Your task to perform on an android device: Open Yahoo.com Image 0: 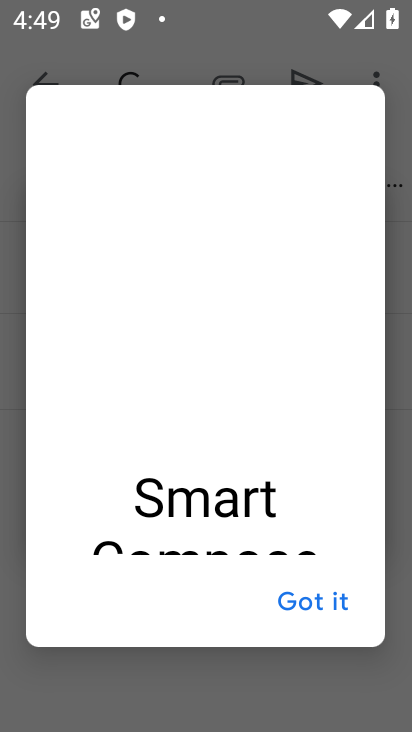
Step 0: press home button
Your task to perform on an android device: Open Yahoo.com Image 1: 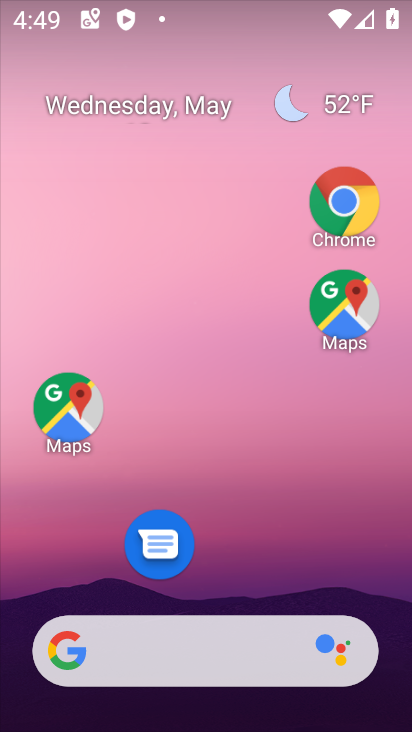
Step 1: click (350, 243)
Your task to perform on an android device: Open Yahoo.com Image 2: 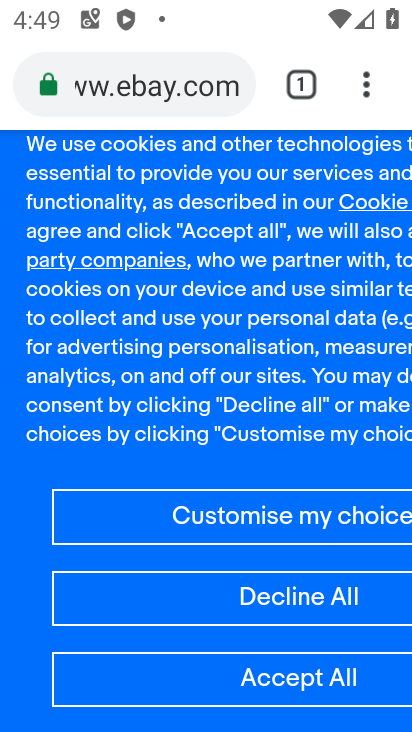
Step 2: press back button
Your task to perform on an android device: Open Yahoo.com Image 3: 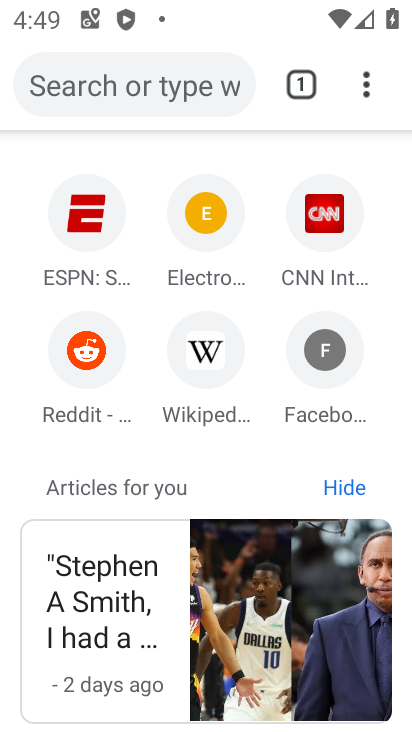
Step 3: click (172, 83)
Your task to perform on an android device: Open Yahoo.com Image 4: 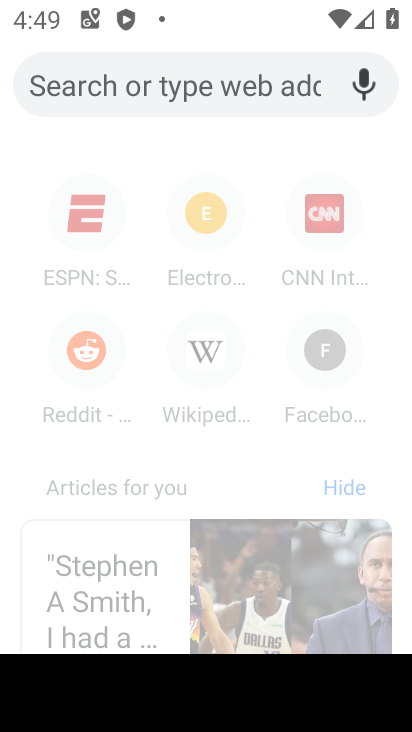
Step 4: type "www.yahoo.com"
Your task to perform on an android device: Open Yahoo.com Image 5: 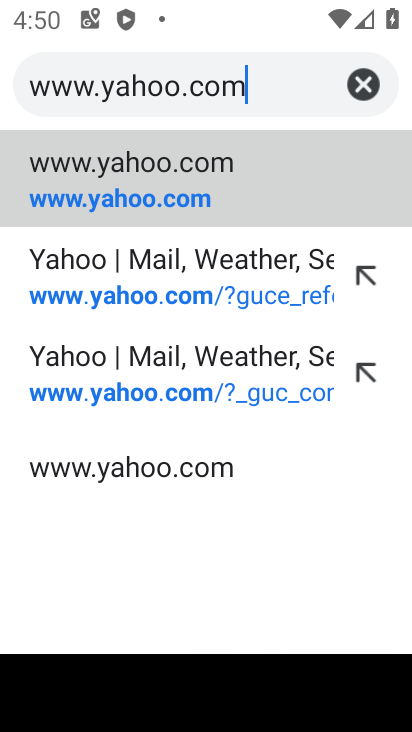
Step 5: click (89, 201)
Your task to perform on an android device: Open Yahoo.com Image 6: 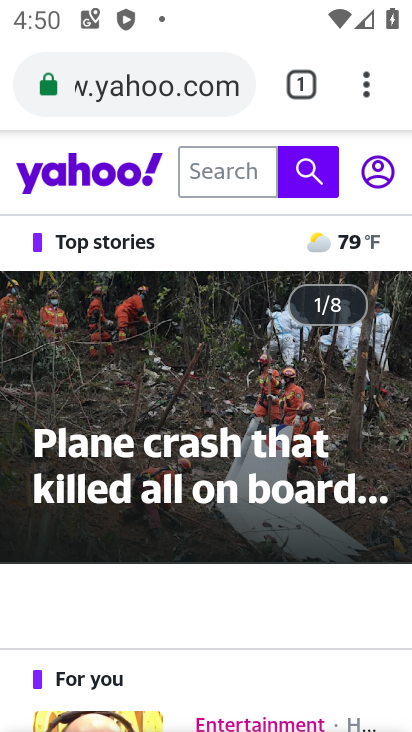
Step 6: task complete